Your task to perform on an android device: View the shopping cart on ebay.com. Add "alienware aurora" to the cart on ebay.com Image 0: 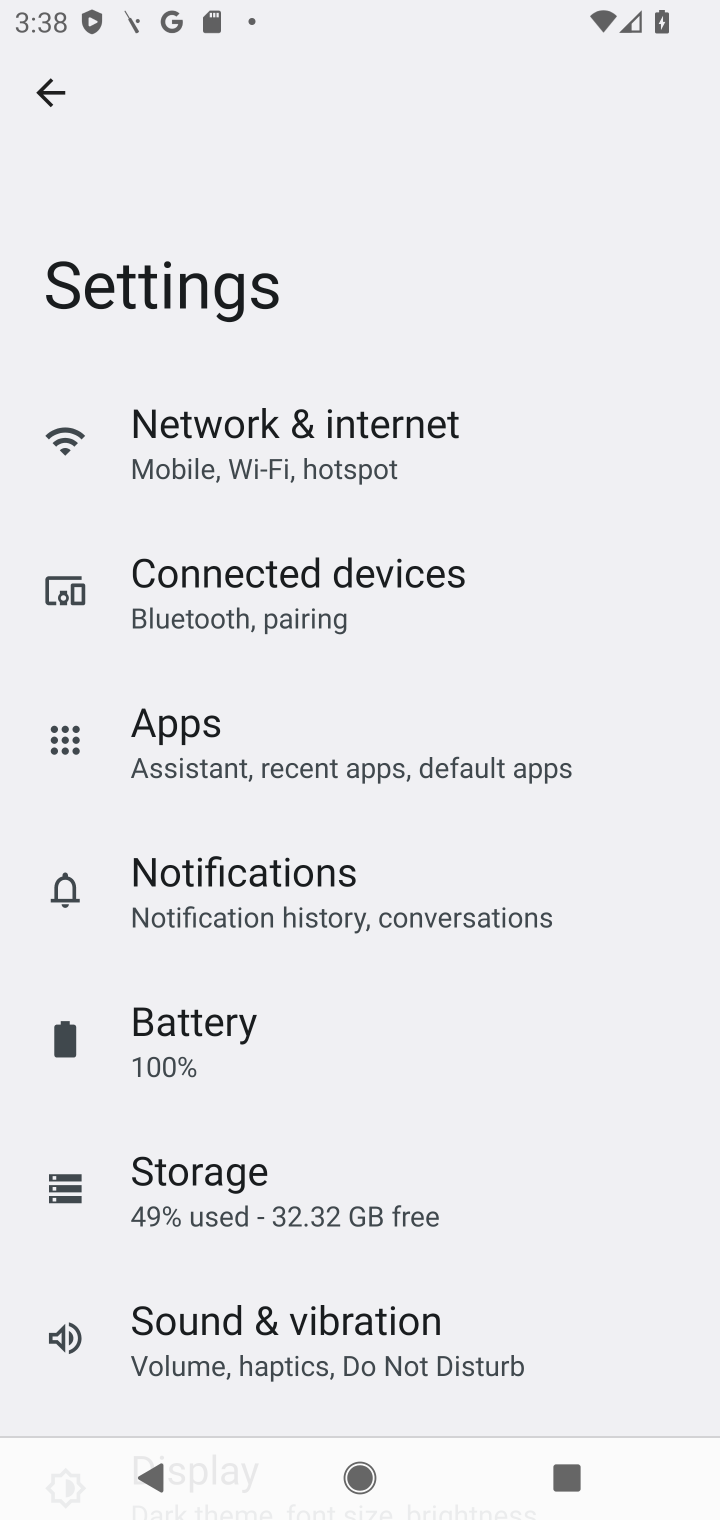
Step 0: press home button
Your task to perform on an android device: View the shopping cart on ebay.com. Add "alienware aurora" to the cart on ebay.com Image 1: 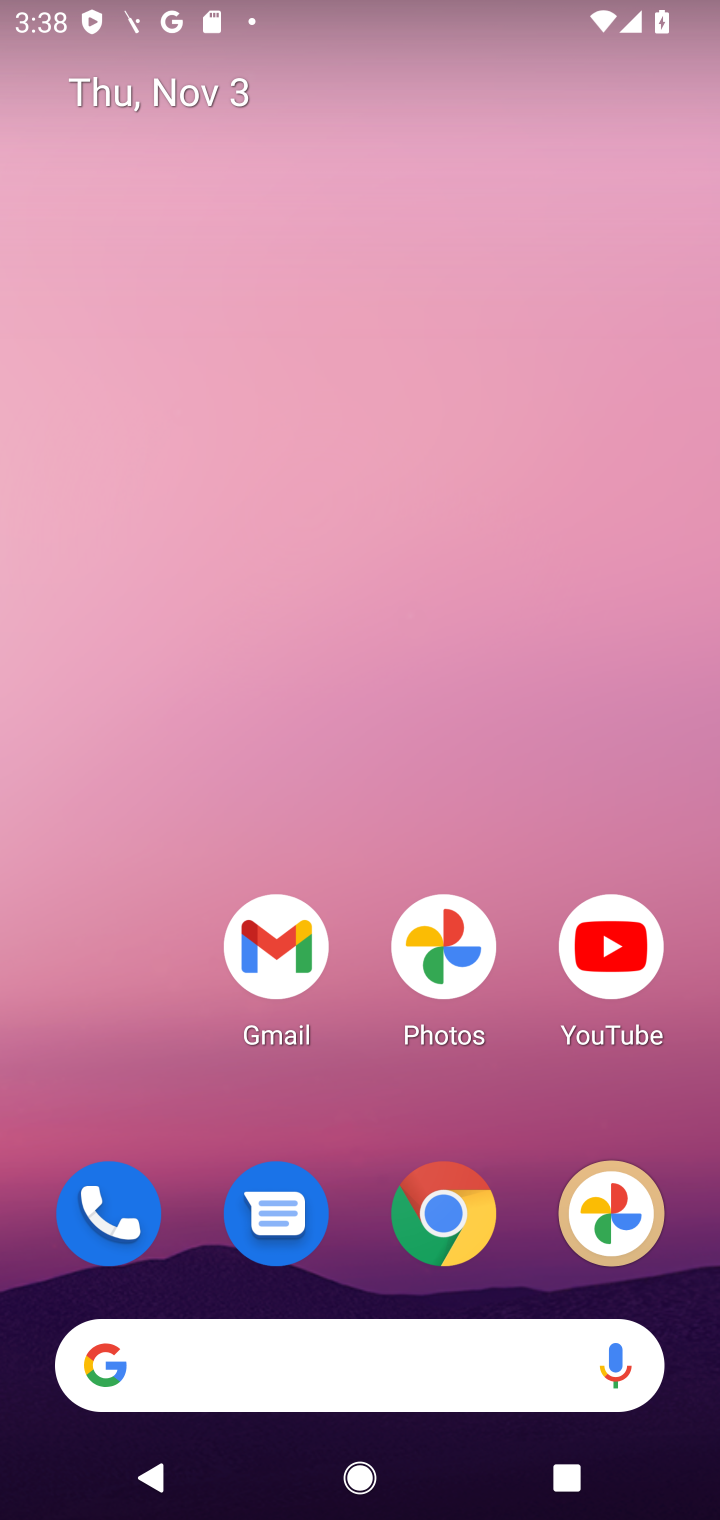
Step 1: click (447, 1226)
Your task to perform on an android device: View the shopping cart on ebay.com. Add "alienware aurora" to the cart on ebay.com Image 2: 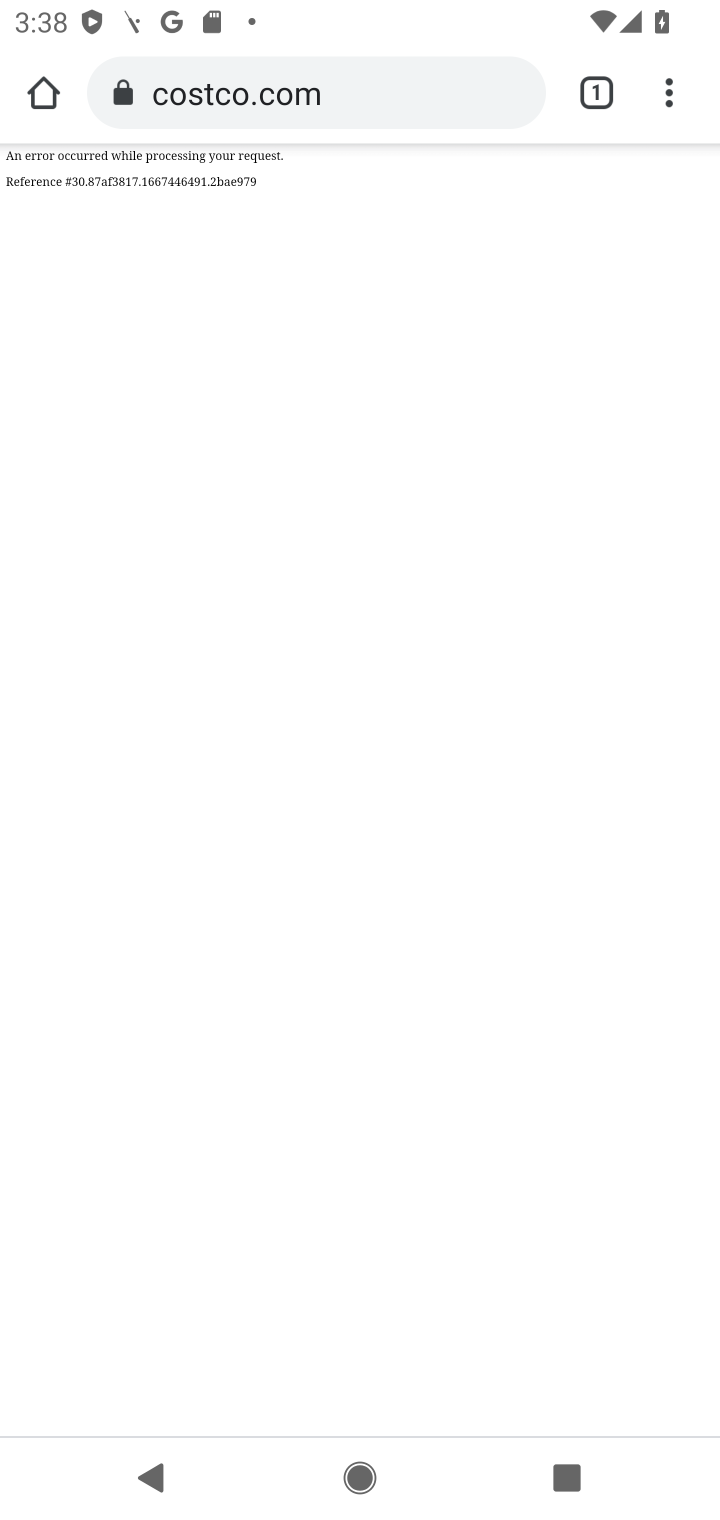
Step 2: click (312, 88)
Your task to perform on an android device: View the shopping cart on ebay.com. Add "alienware aurora" to the cart on ebay.com Image 3: 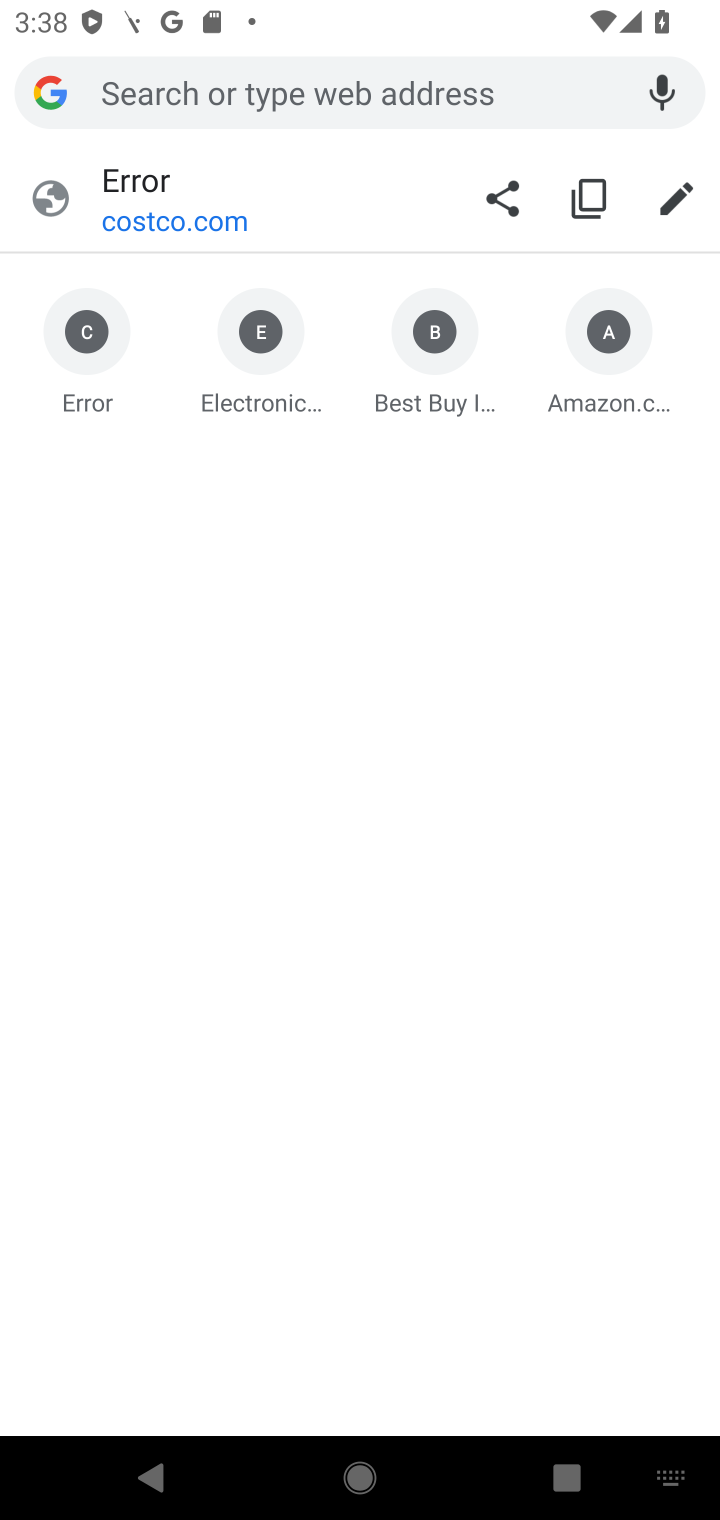
Step 3: type "ebay.com"
Your task to perform on an android device: View the shopping cart on ebay.com. Add "alienware aurora" to the cart on ebay.com Image 4: 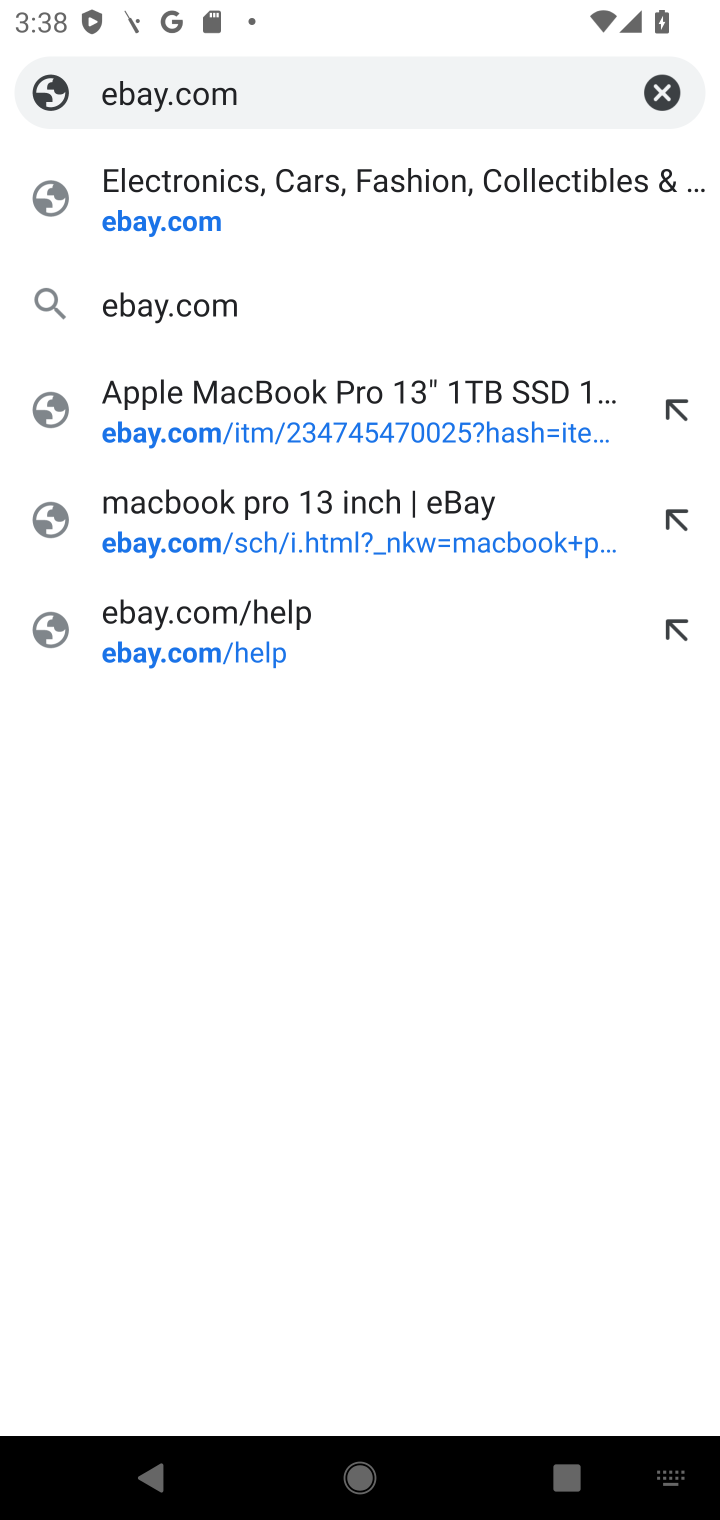
Step 4: click (132, 236)
Your task to perform on an android device: View the shopping cart on ebay.com. Add "alienware aurora" to the cart on ebay.com Image 5: 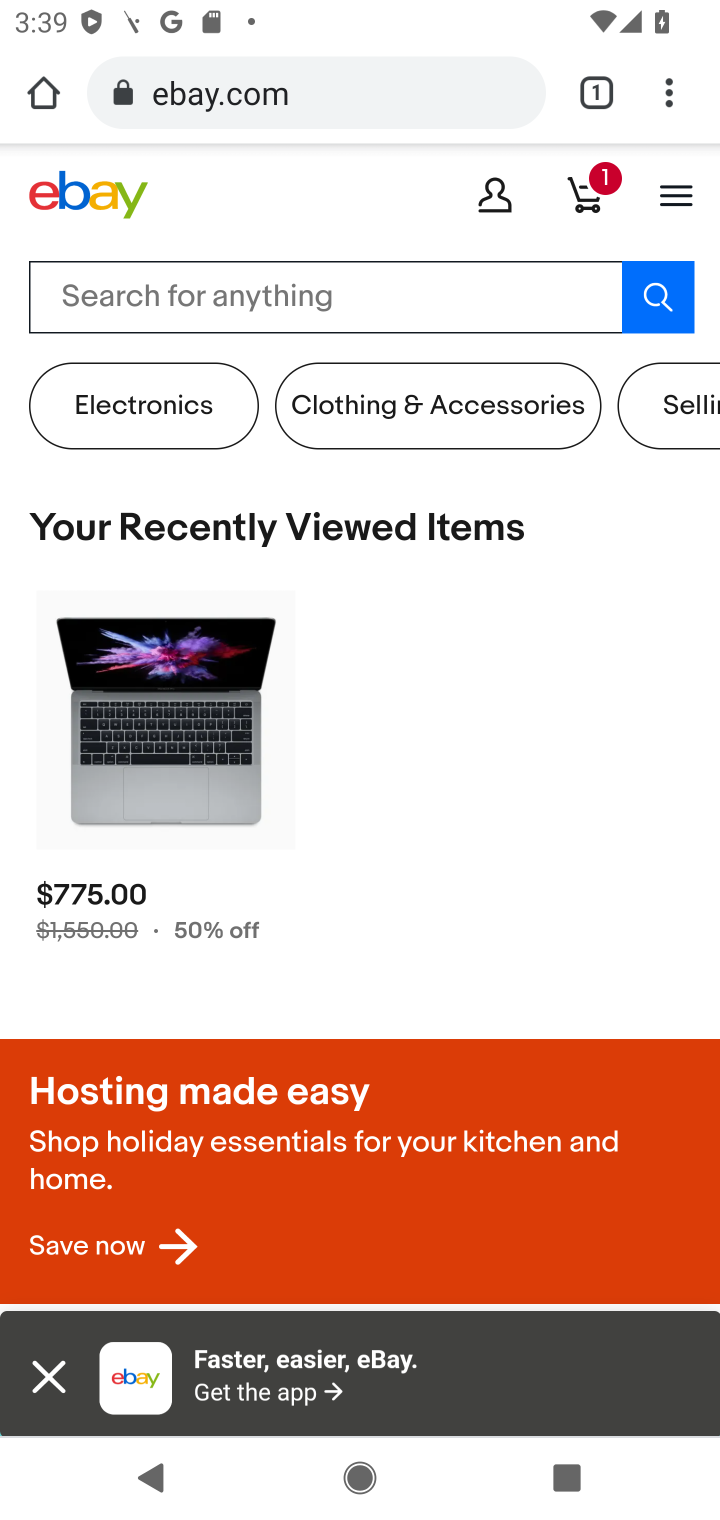
Step 5: click (593, 188)
Your task to perform on an android device: View the shopping cart on ebay.com. Add "alienware aurora" to the cart on ebay.com Image 6: 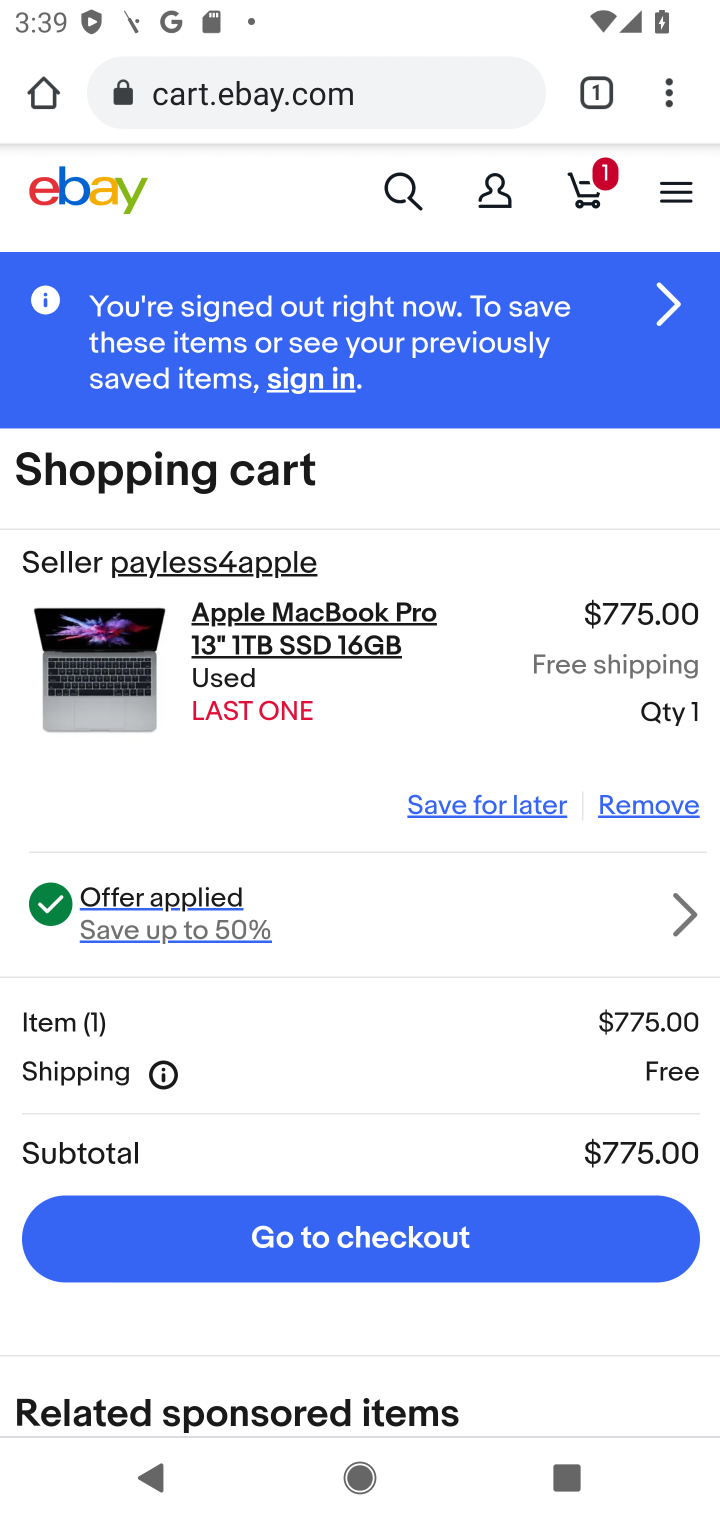
Step 6: click (403, 196)
Your task to perform on an android device: View the shopping cart on ebay.com. Add "alienware aurora" to the cart on ebay.com Image 7: 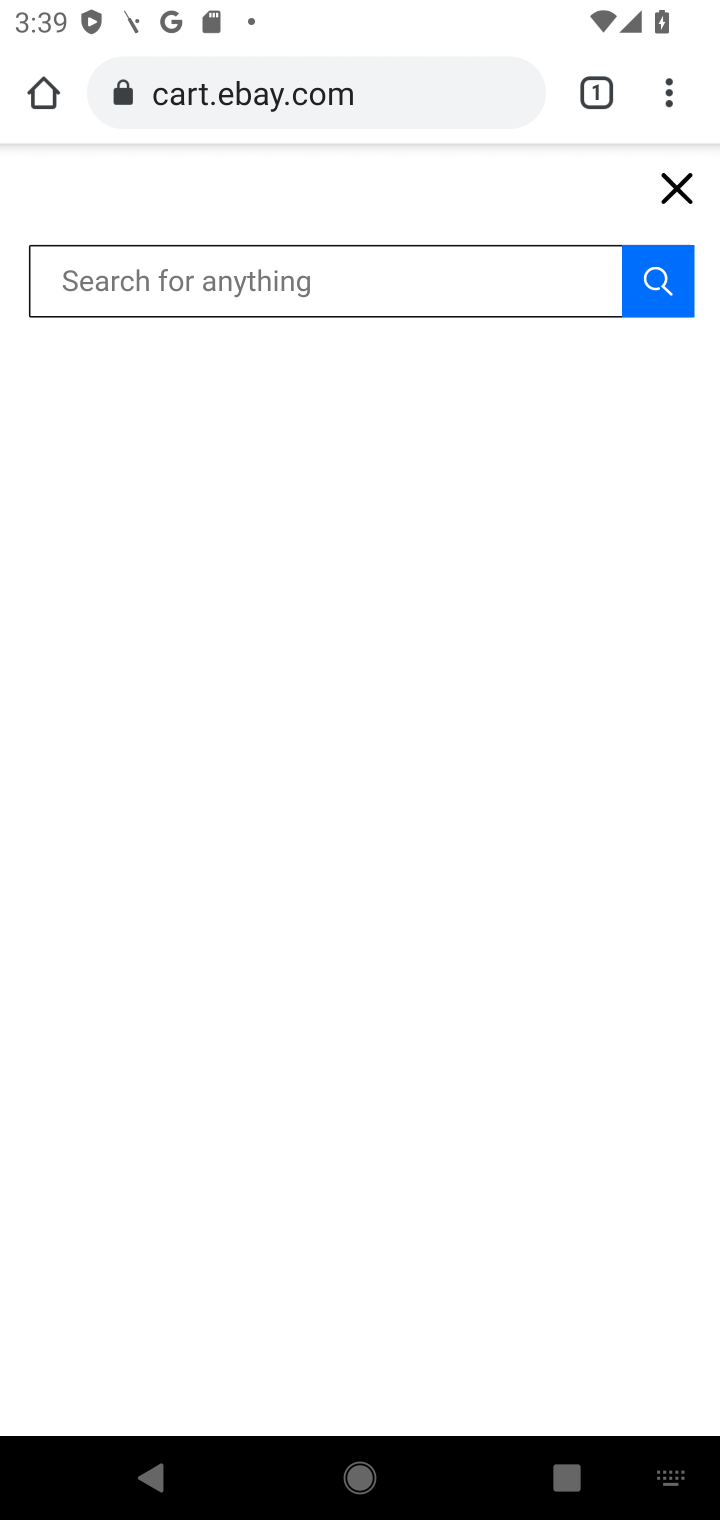
Step 7: type "alienware aurora"
Your task to perform on an android device: View the shopping cart on ebay.com. Add "alienware aurora" to the cart on ebay.com Image 8: 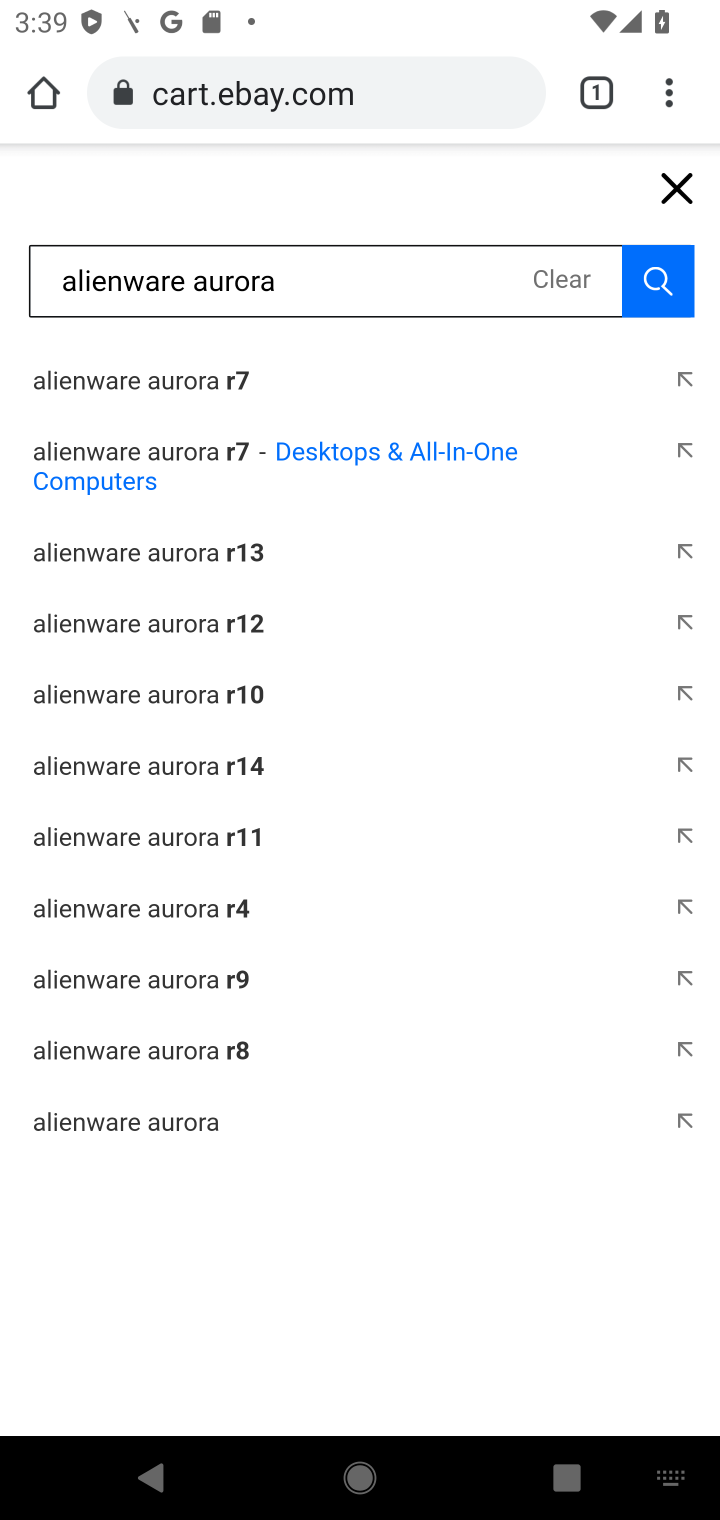
Step 8: click (661, 294)
Your task to perform on an android device: View the shopping cart on ebay.com. Add "alienware aurora" to the cart on ebay.com Image 9: 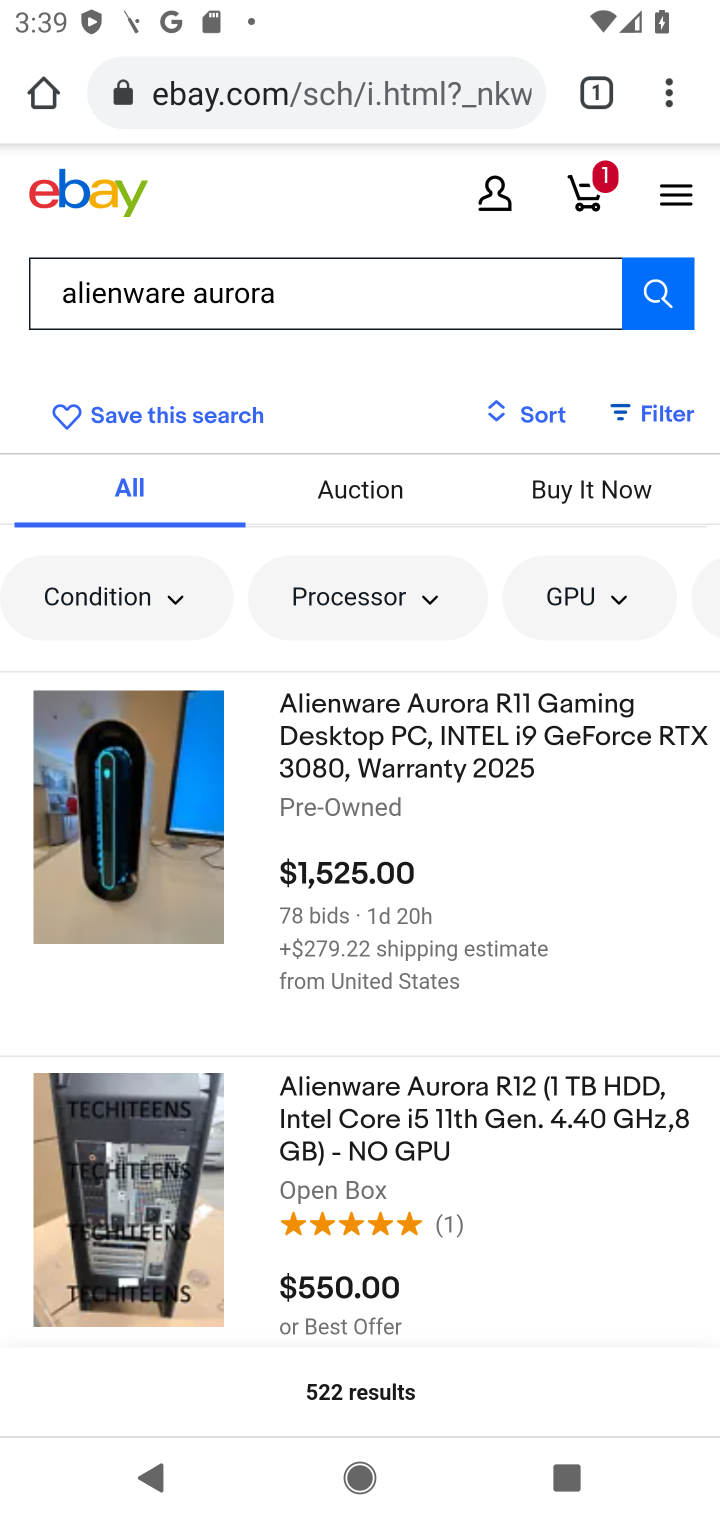
Step 9: click (305, 866)
Your task to perform on an android device: View the shopping cart on ebay.com. Add "alienware aurora" to the cart on ebay.com Image 10: 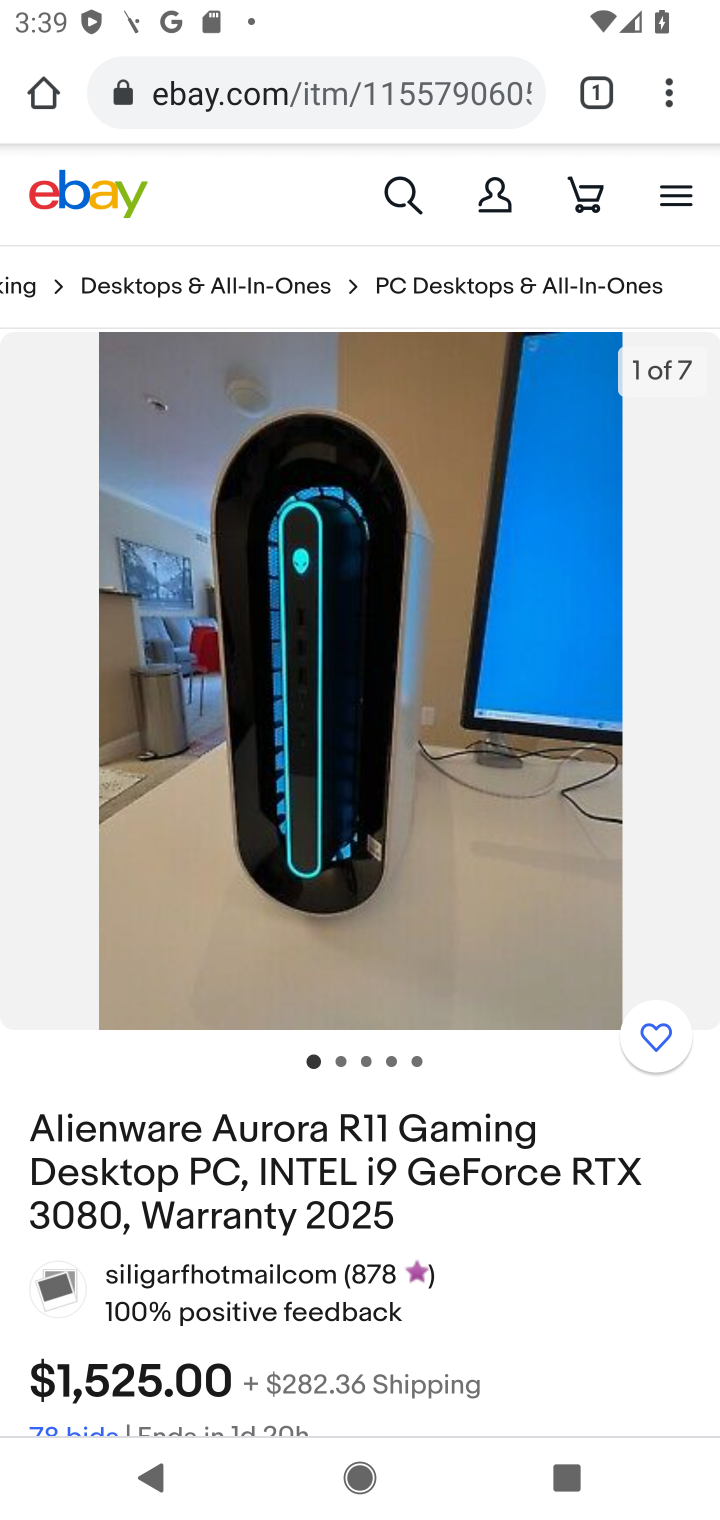
Step 10: drag from (374, 1116) to (408, 382)
Your task to perform on an android device: View the shopping cart on ebay.com. Add "alienware aurora" to the cart on ebay.com Image 11: 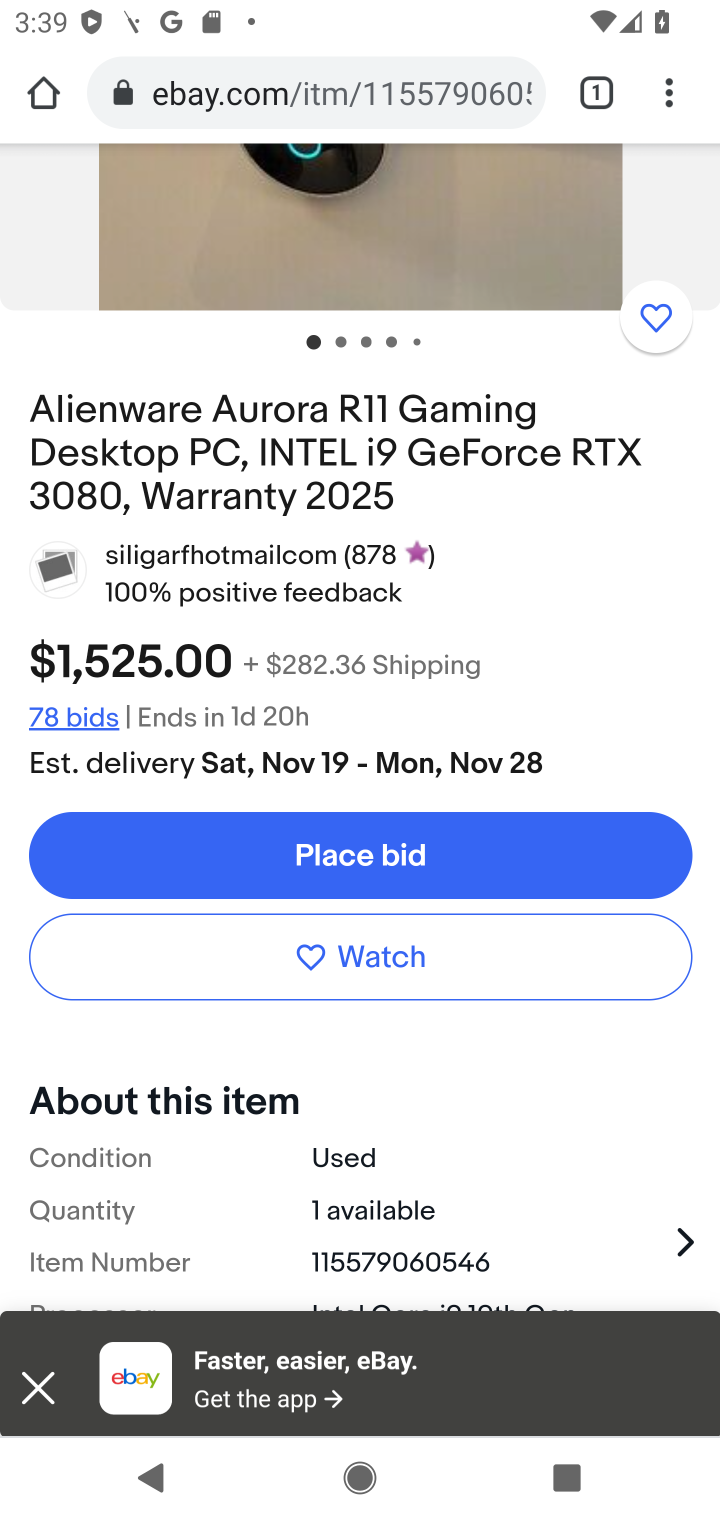
Step 11: drag from (391, 346) to (446, 1233)
Your task to perform on an android device: View the shopping cart on ebay.com. Add "alienware aurora" to the cart on ebay.com Image 12: 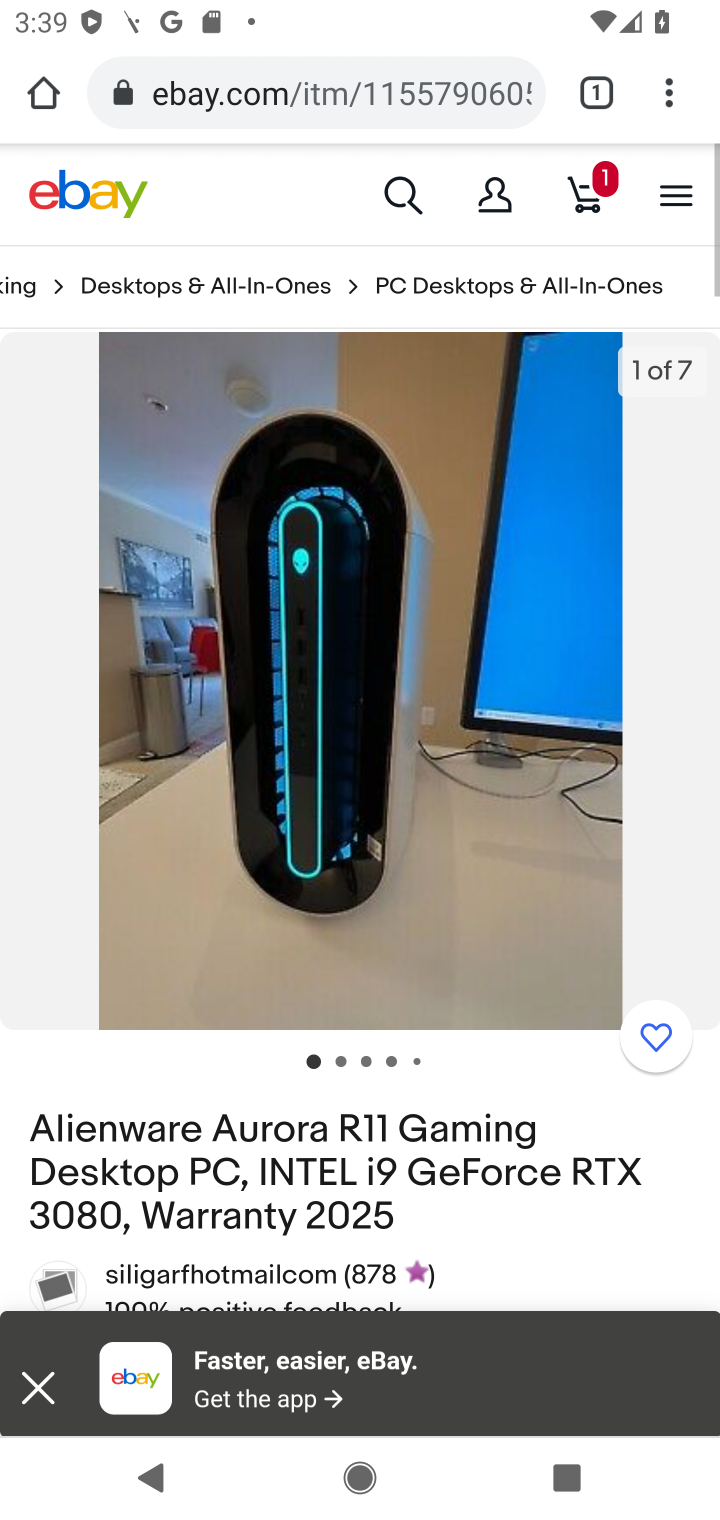
Step 12: press back button
Your task to perform on an android device: View the shopping cart on ebay.com. Add "alienware aurora" to the cart on ebay.com Image 13: 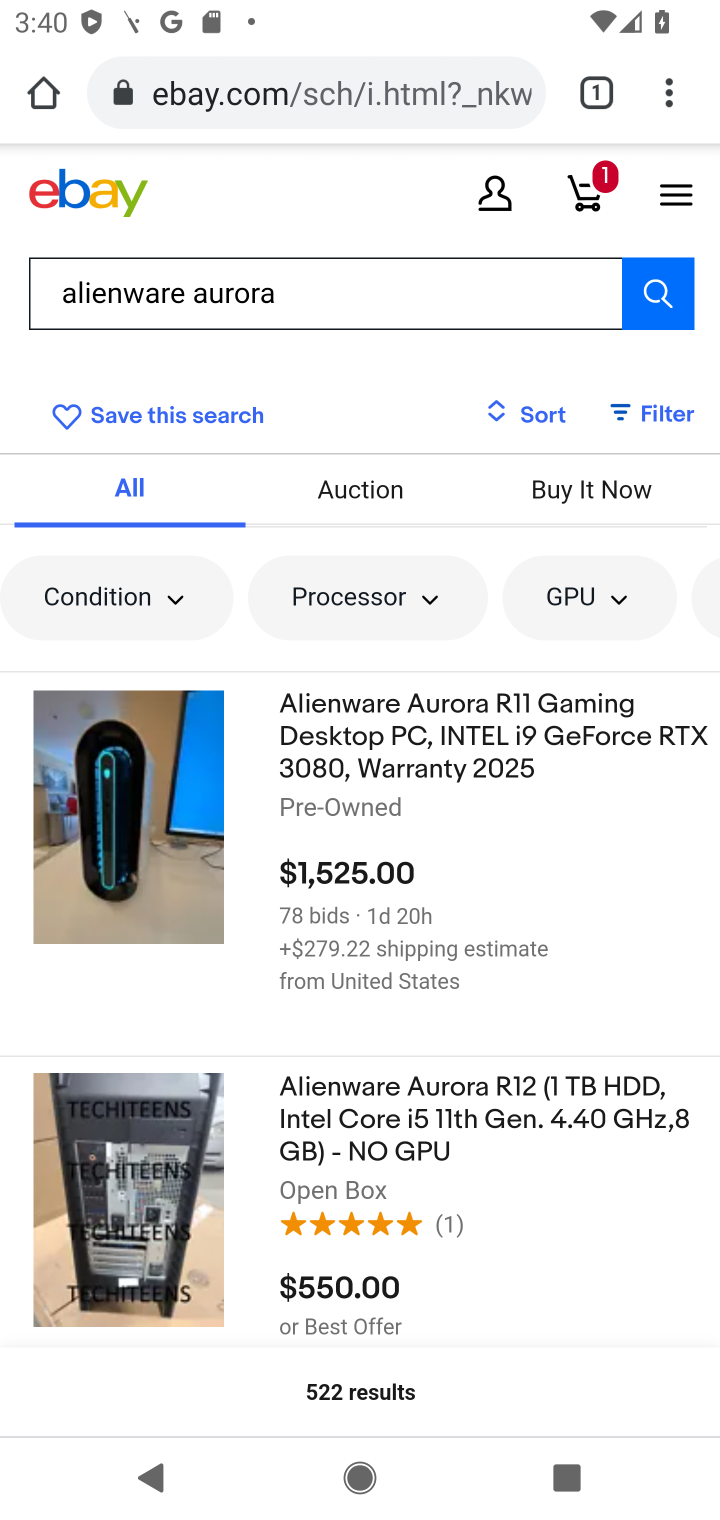
Step 13: click (268, 1215)
Your task to perform on an android device: View the shopping cart on ebay.com. Add "alienware aurora" to the cart on ebay.com Image 14: 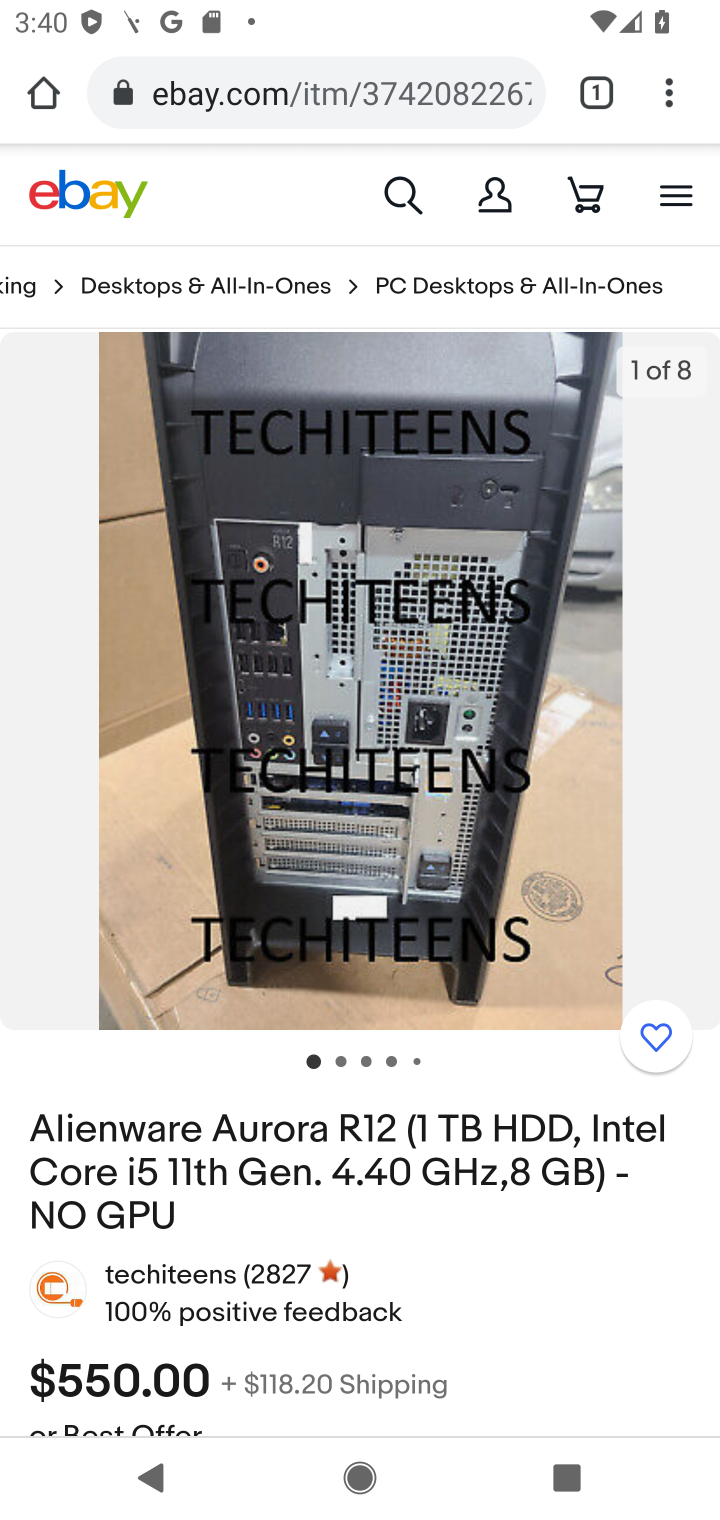
Step 14: drag from (268, 1211) to (322, 320)
Your task to perform on an android device: View the shopping cart on ebay.com. Add "alienware aurora" to the cart on ebay.com Image 15: 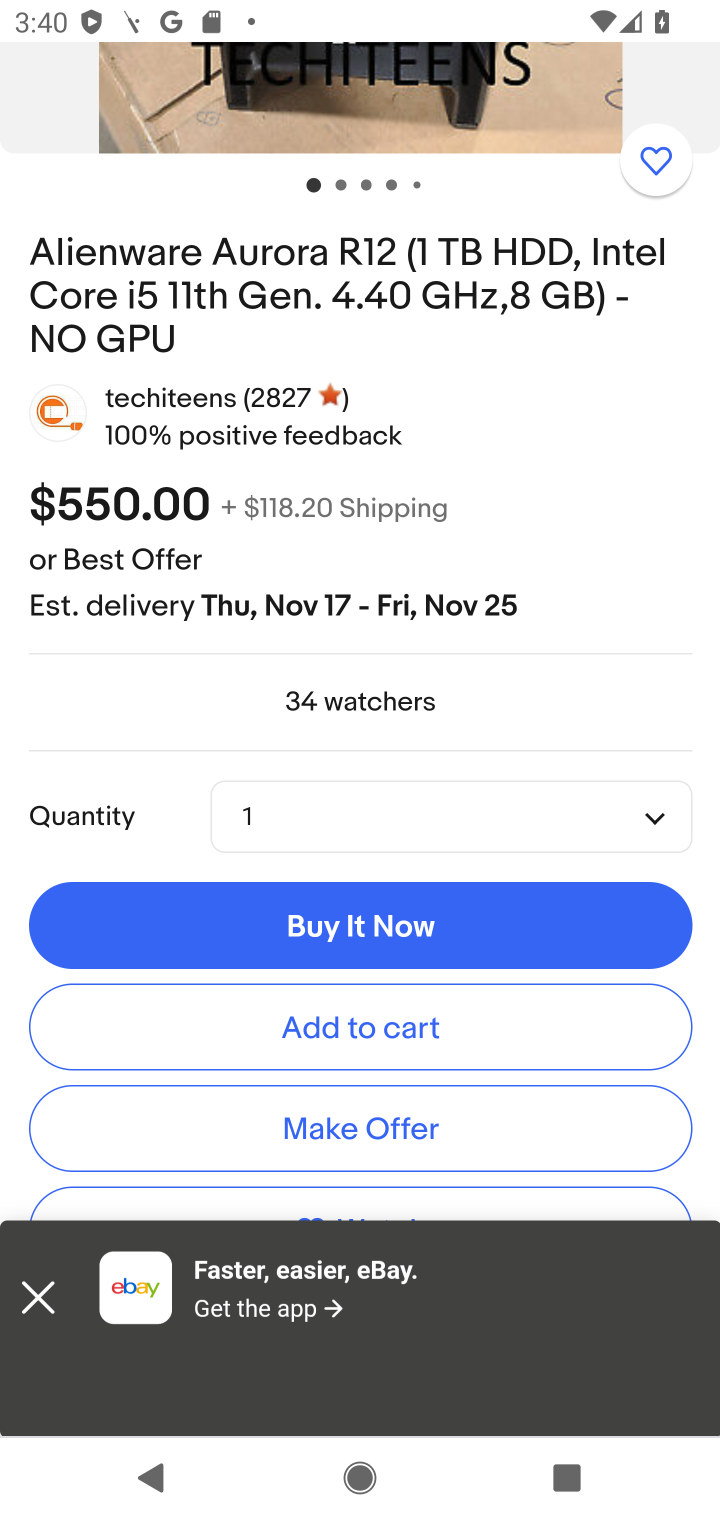
Step 15: click (324, 1021)
Your task to perform on an android device: View the shopping cart on ebay.com. Add "alienware aurora" to the cart on ebay.com Image 16: 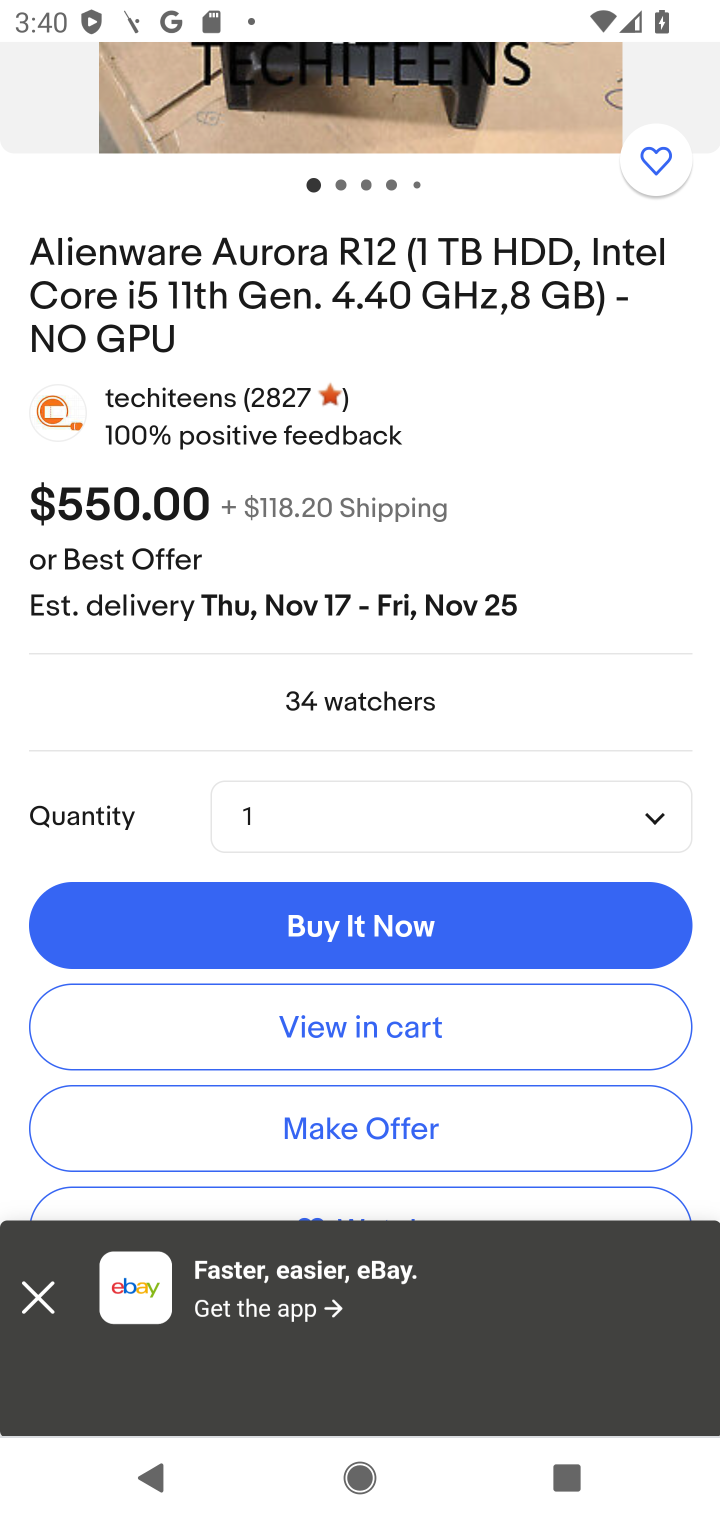
Step 16: task complete